Your task to perform on an android device: toggle pop-ups in chrome Image 0: 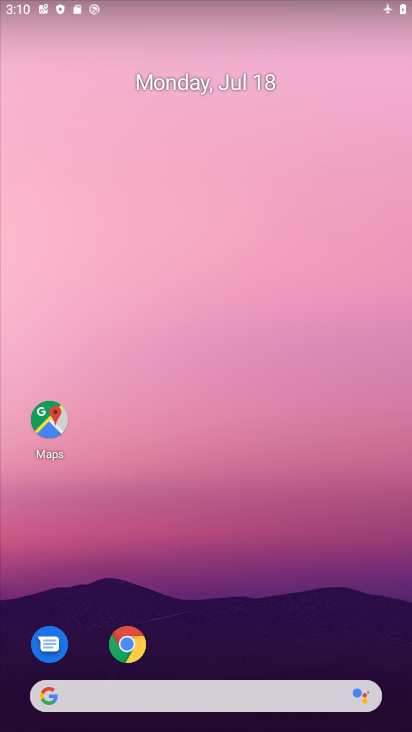
Step 0: click (126, 646)
Your task to perform on an android device: toggle pop-ups in chrome Image 1: 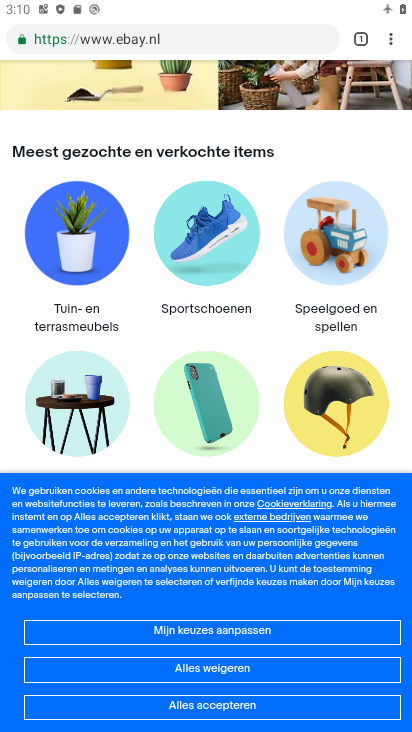
Step 1: click (392, 44)
Your task to perform on an android device: toggle pop-ups in chrome Image 2: 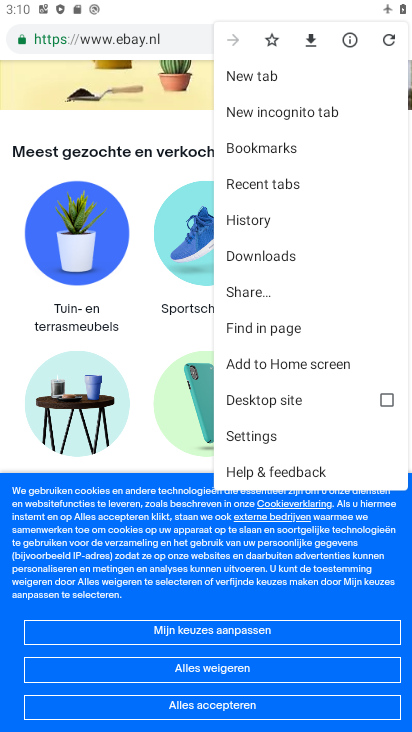
Step 2: click (262, 433)
Your task to perform on an android device: toggle pop-ups in chrome Image 3: 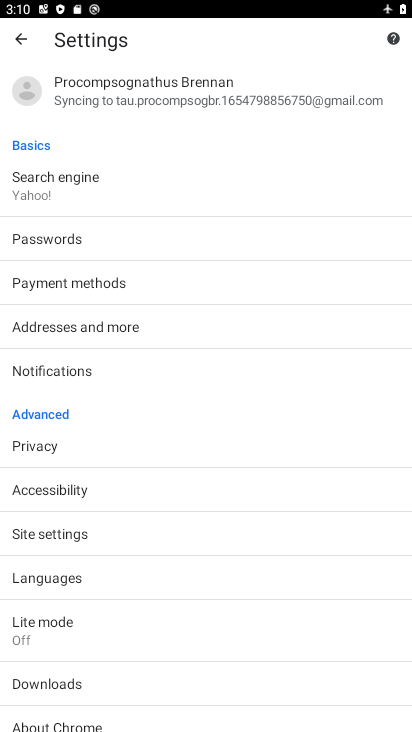
Step 3: click (64, 538)
Your task to perform on an android device: toggle pop-ups in chrome Image 4: 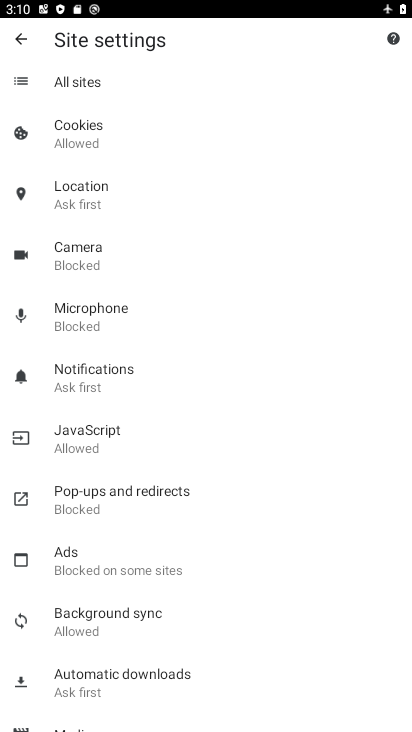
Step 4: click (92, 489)
Your task to perform on an android device: toggle pop-ups in chrome Image 5: 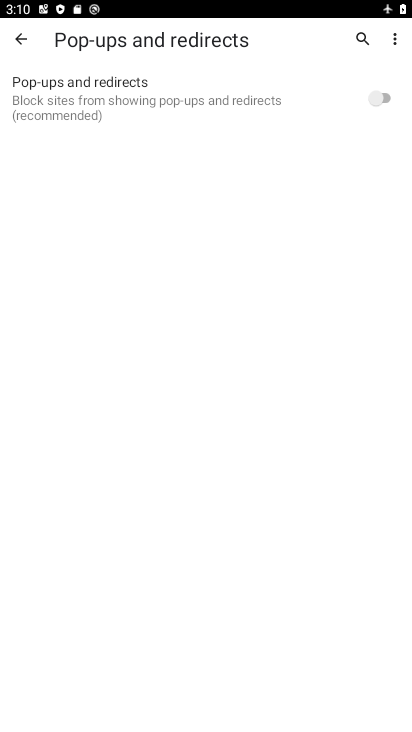
Step 5: click (385, 94)
Your task to perform on an android device: toggle pop-ups in chrome Image 6: 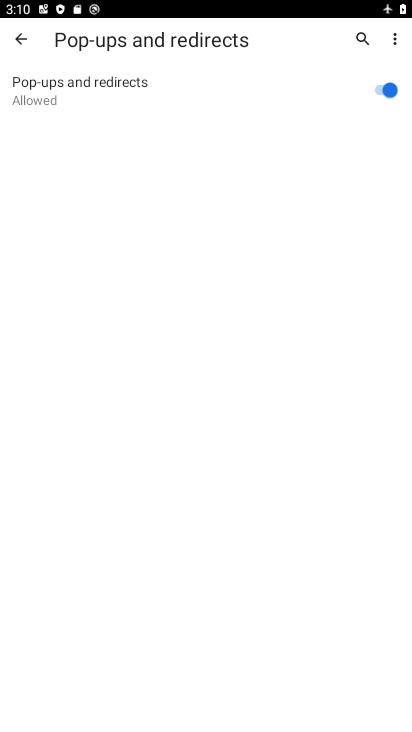
Step 6: task complete